Your task to perform on an android device: Open Yahoo.com Image 0: 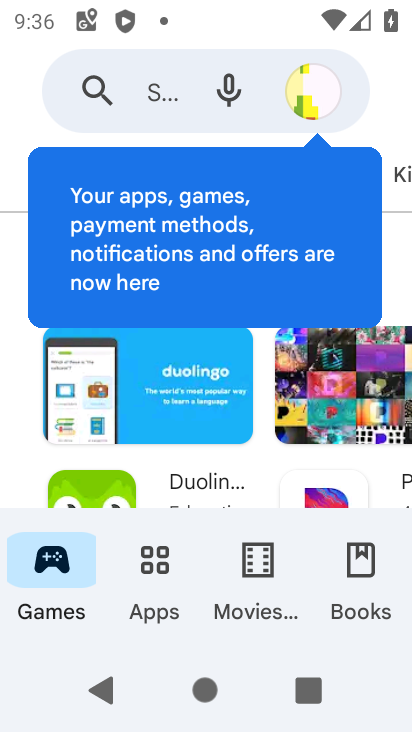
Step 0: press home button
Your task to perform on an android device: Open Yahoo.com Image 1: 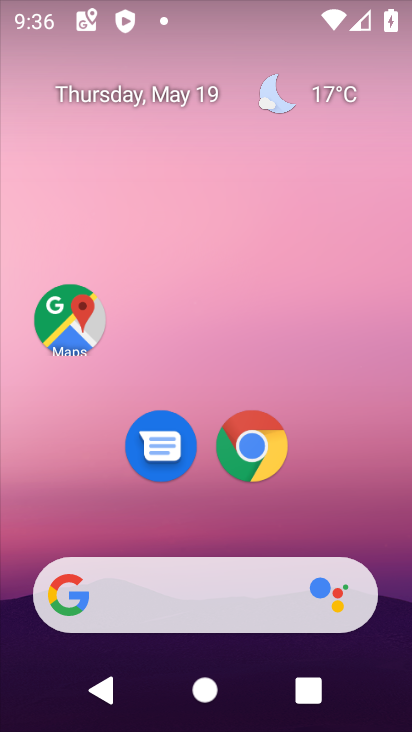
Step 1: click (257, 439)
Your task to perform on an android device: Open Yahoo.com Image 2: 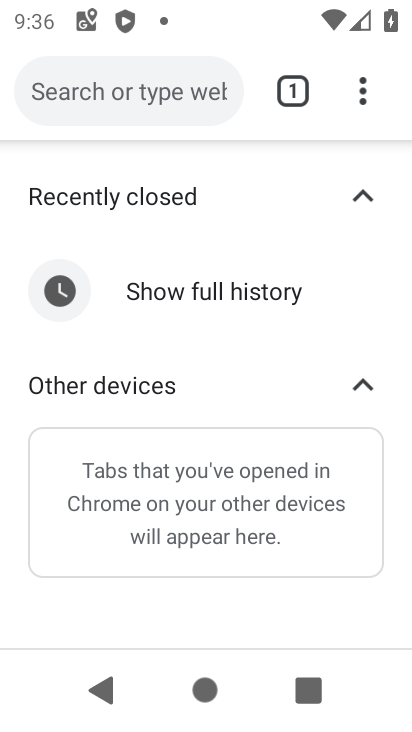
Step 2: click (153, 86)
Your task to perform on an android device: Open Yahoo.com Image 3: 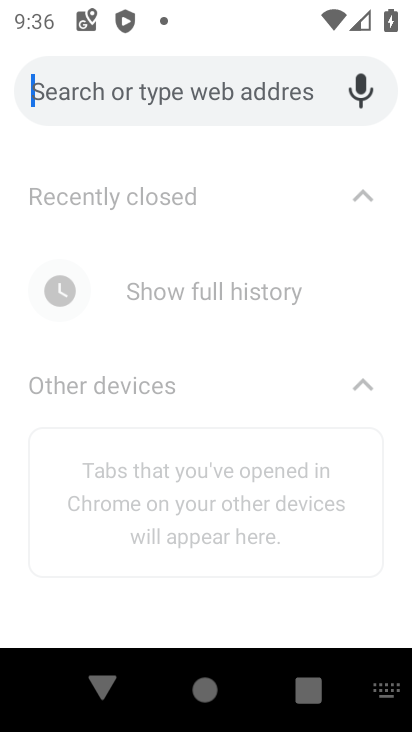
Step 3: type "Yahoo.com"
Your task to perform on an android device: Open Yahoo.com Image 4: 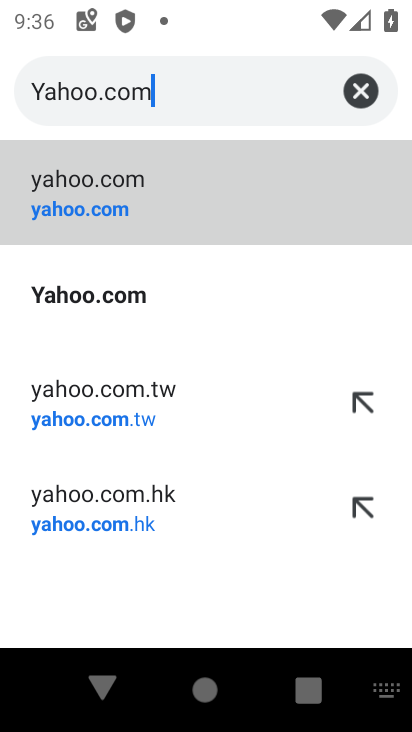
Step 4: click (116, 216)
Your task to perform on an android device: Open Yahoo.com Image 5: 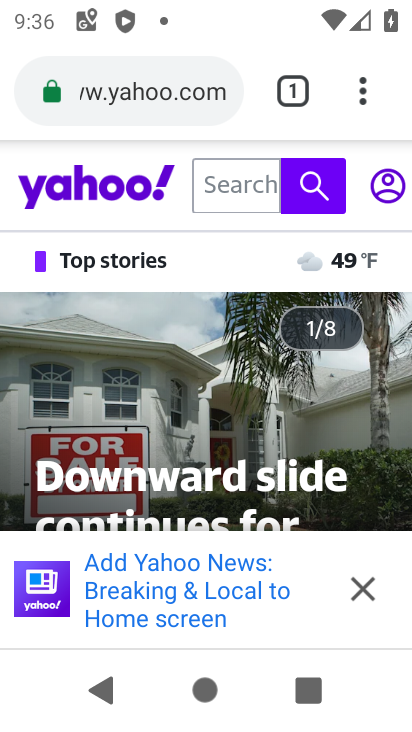
Step 5: click (364, 592)
Your task to perform on an android device: Open Yahoo.com Image 6: 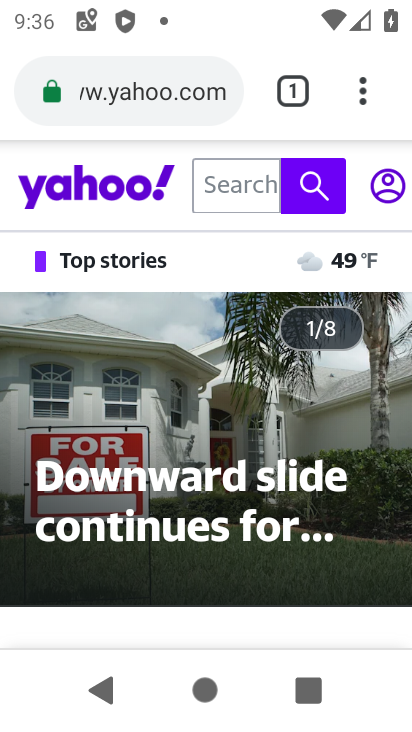
Step 6: task complete